Your task to perform on an android device: Show me popular videos on Youtube Image 0: 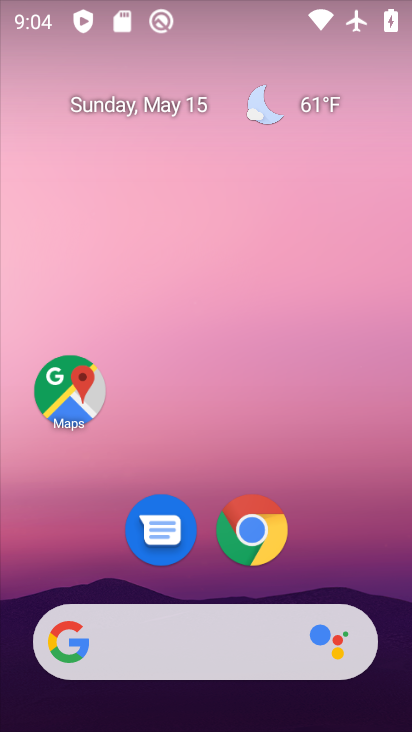
Step 0: drag from (209, 720) to (156, 178)
Your task to perform on an android device: Show me popular videos on Youtube Image 1: 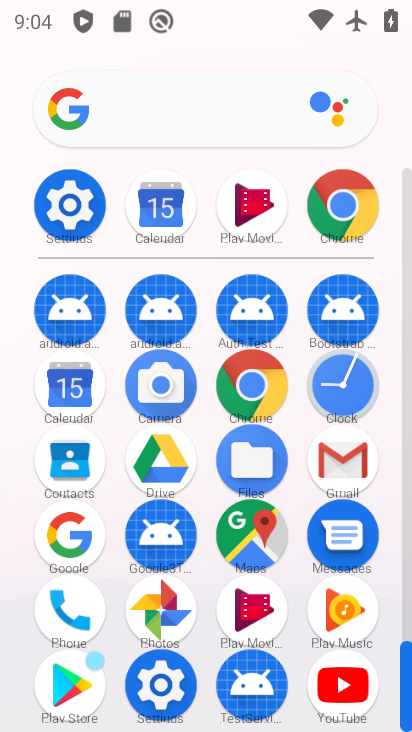
Step 1: drag from (302, 609) to (267, 159)
Your task to perform on an android device: Show me popular videos on Youtube Image 2: 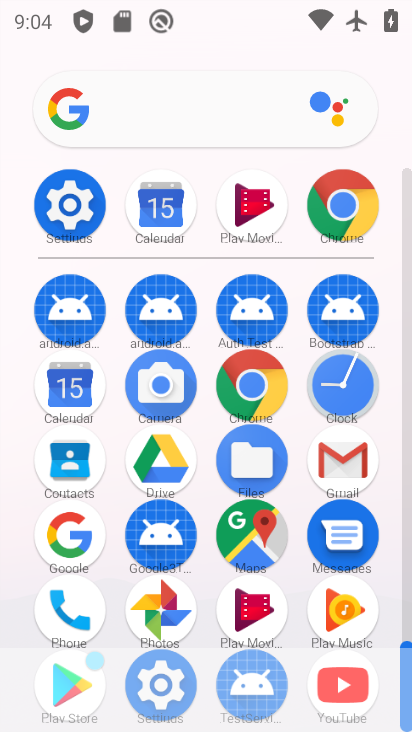
Step 2: click (350, 674)
Your task to perform on an android device: Show me popular videos on Youtube Image 3: 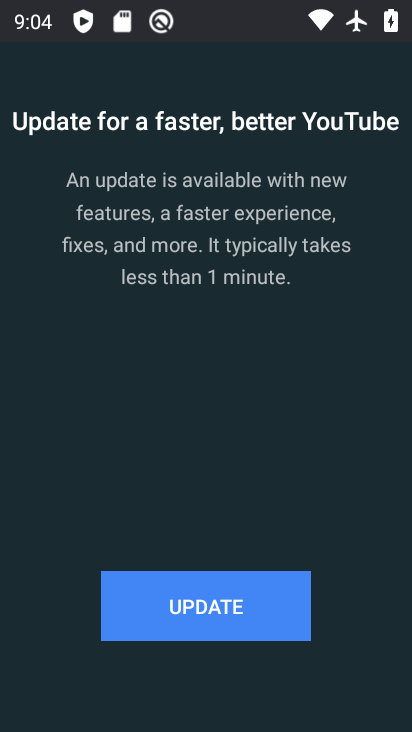
Step 3: task complete